Your task to perform on an android device: open chrome privacy settings Image 0: 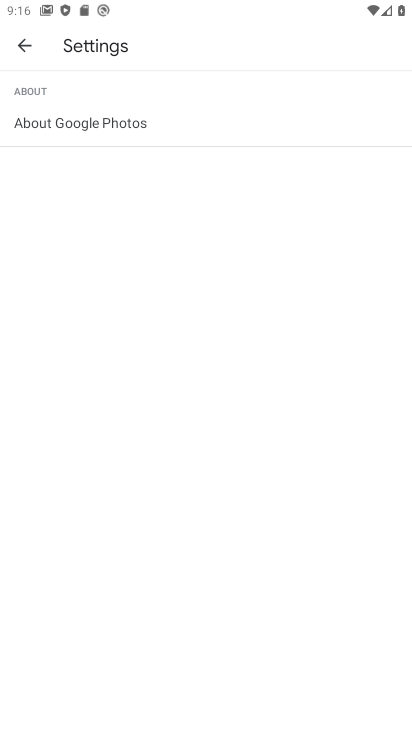
Step 0: press home button
Your task to perform on an android device: open chrome privacy settings Image 1: 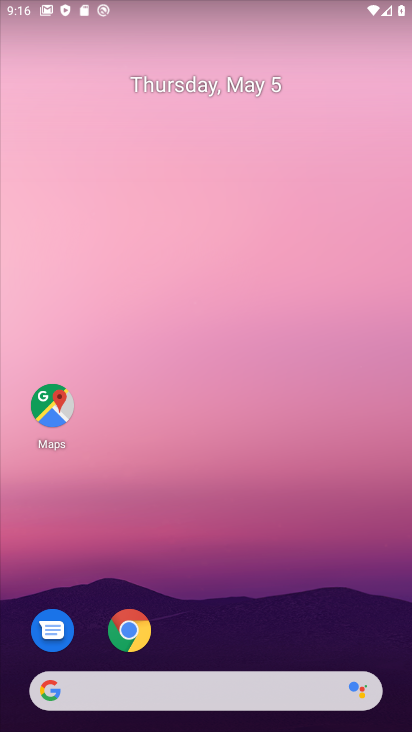
Step 1: click (130, 641)
Your task to perform on an android device: open chrome privacy settings Image 2: 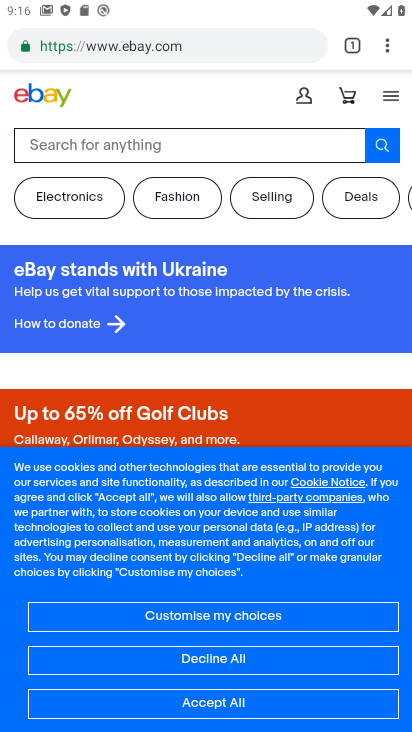
Step 2: click (384, 42)
Your task to perform on an android device: open chrome privacy settings Image 3: 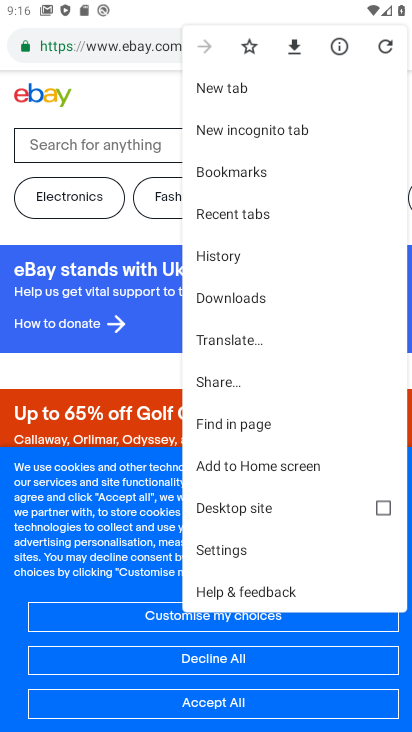
Step 3: click (225, 547)
Your task to perform on an android device: open chrome privacy settings Image 4: 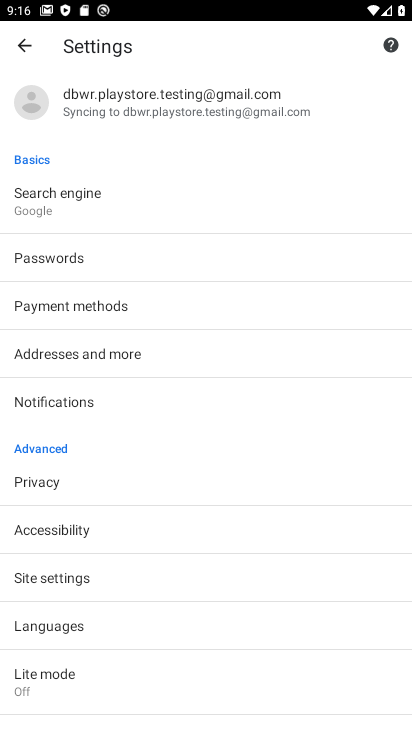
Step 4: click (21, 481)
Your task to perform on an android device: open chrome privacy settings Image 5: 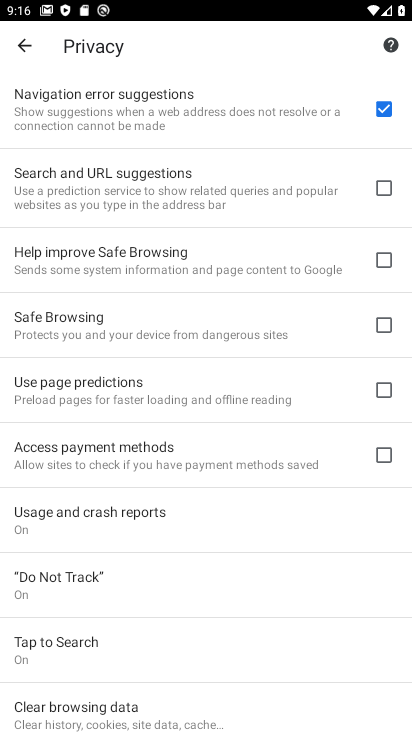
Step 5: task complete